Your task to perform on an android device: Open display settings Image 0: 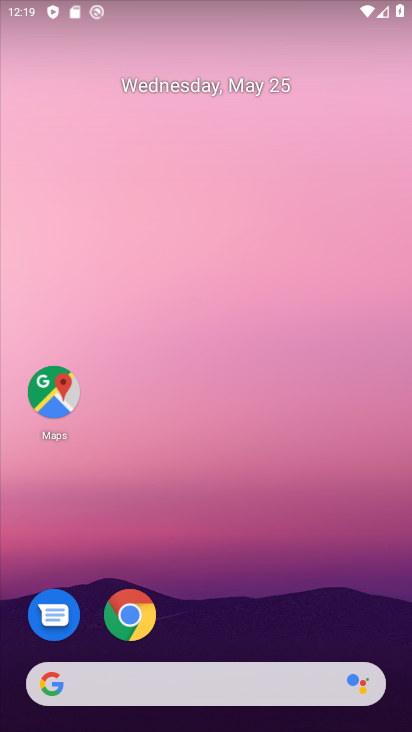
Step 0: drag from (175, 643) to (167, 98)
Your task to perform on an android device: Open display settings Image 1: 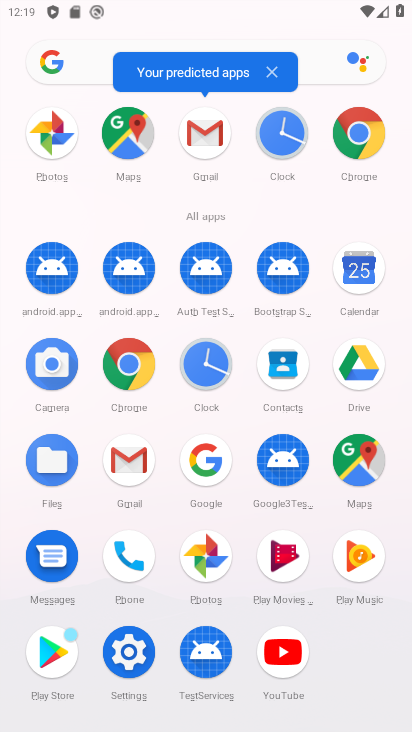
Step 1: click (114, 660)
Your task to perform on an android device: Open display settings Image 2: 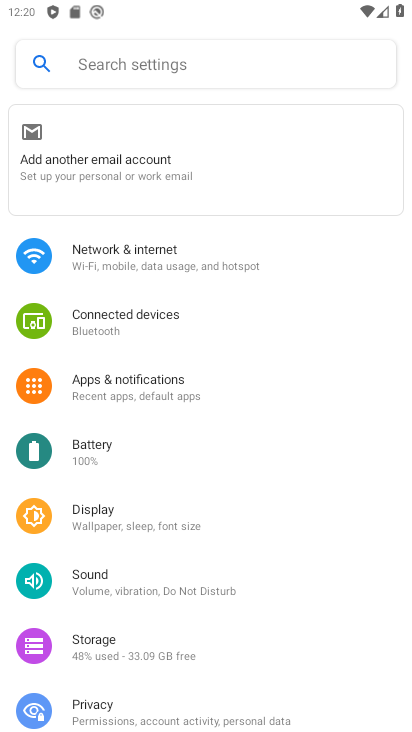
Step 2: click (80, 503)
Your task to perform on an android device: Open display settings Image 3: 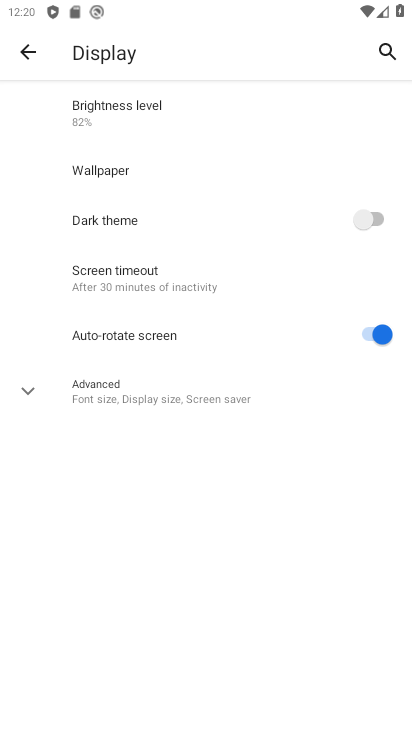
Step 3: task complete